Your task to perform on an android device: Search for Italian restaurants on Maps Image 0: 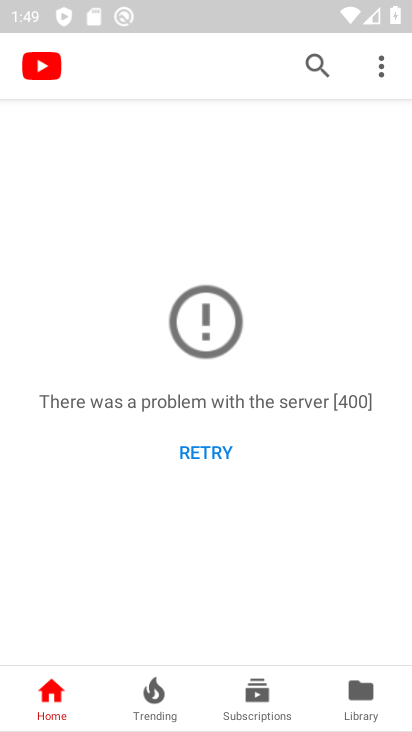
Step 0: press home button
Your task to perform on an android device: Search for Italian restaurants on Maps Image 1: 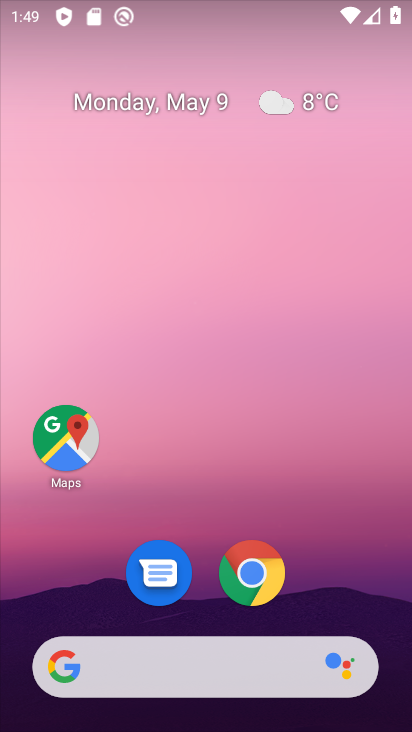
Step 1: click (69, 442)
Your task to perform on an android device: Search for Italian restaurants on Maps Image 2: 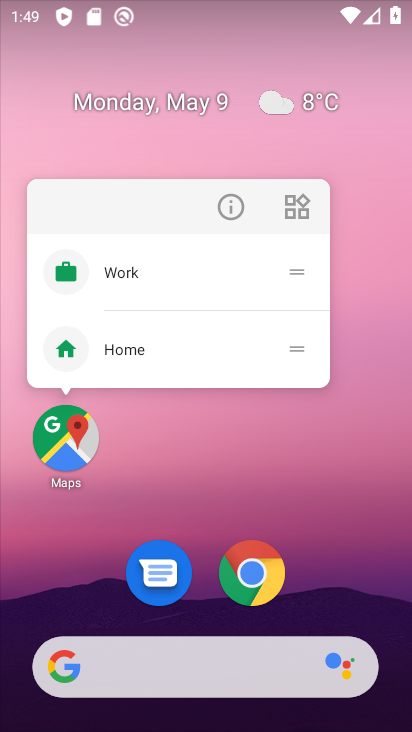
Step 2: click (61, 444)
Your task to perform on an android device: Search for Italian restaurants on Maps Image 3: 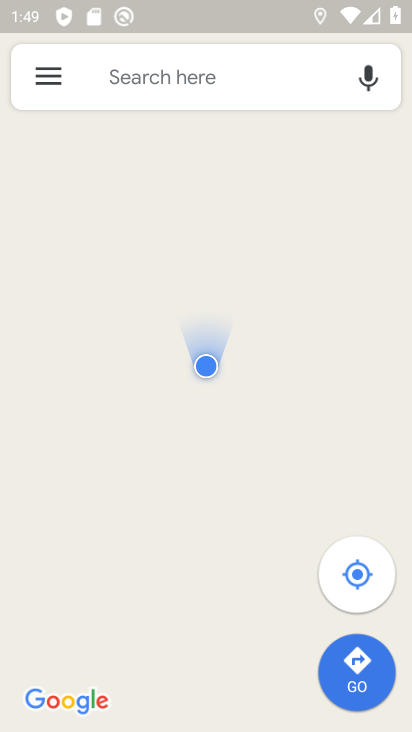
Step 3: click (233, 82)
Your task to perform on an android device: Search for Italian restaurants on Maps Image 4: 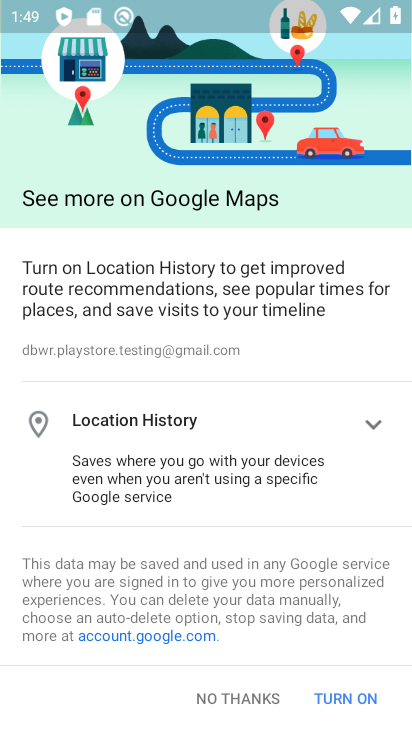
Step 4: drag from (345, 691) to (235, 618)
Your task to perform on an android device: Search for Italian restaurants on Maps Image 5: 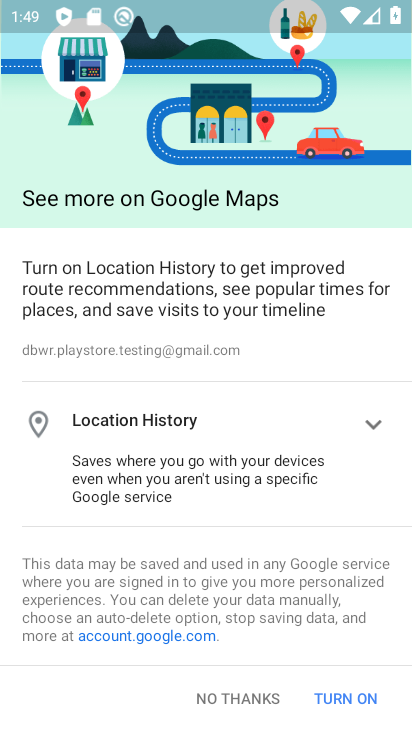
Step 5: click (250, 690)
Your task to perform on an android device: Search for Italian restaurants on Maps Image 6: 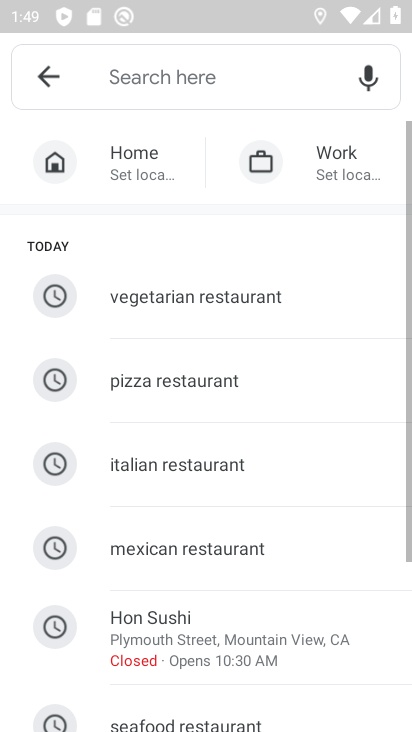
Step 6: click (191, 86)
Your task to perform on an android device: Search for Italian restaurants on Maps Image 7: 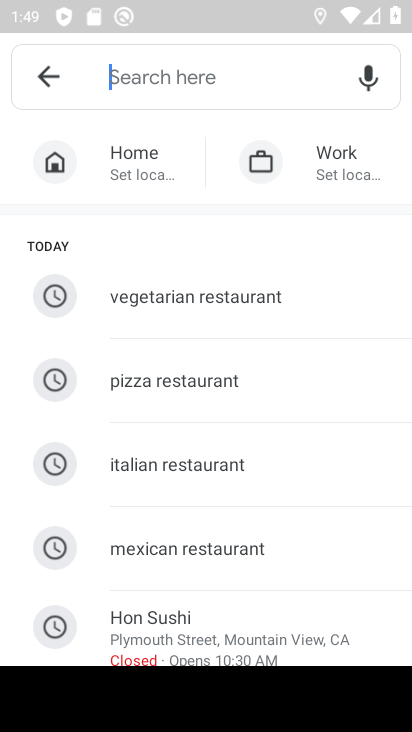
Step 7: click (201, 465)
Your task to perform on an android device: Search for Italian restaurants on Maps Image 8: 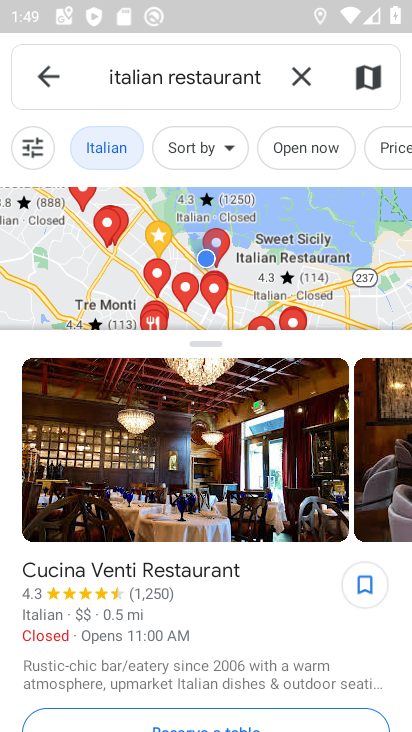
Step 8: task complete